Your task to perform on an android device: check battery use Image 0: 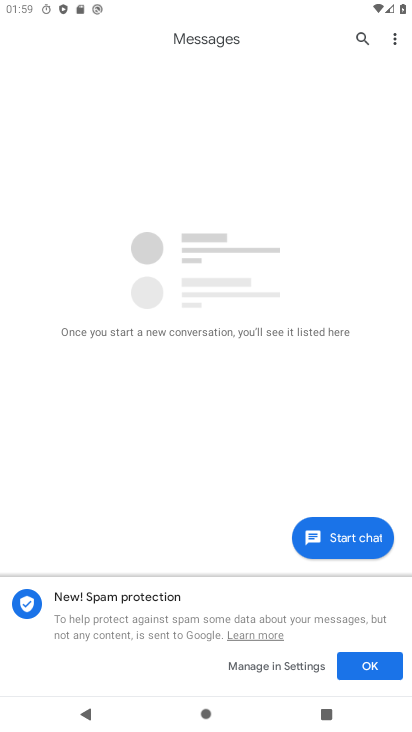
Step 0: press home button
Your task to perform on an android device: check battery use Image 1: 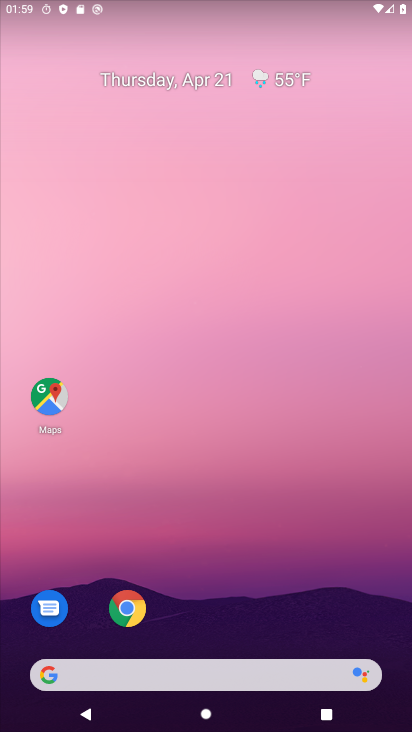
Step 1: drag from (203, 607) to (86, 79)
Your task to perform on an android device: check battery use Image 2: 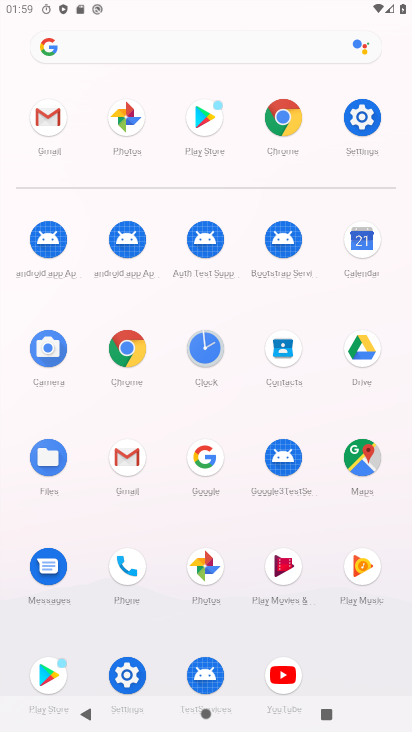
Step 2: click (355, 116)
Your task to perform on an android device: check battery use Image 3: 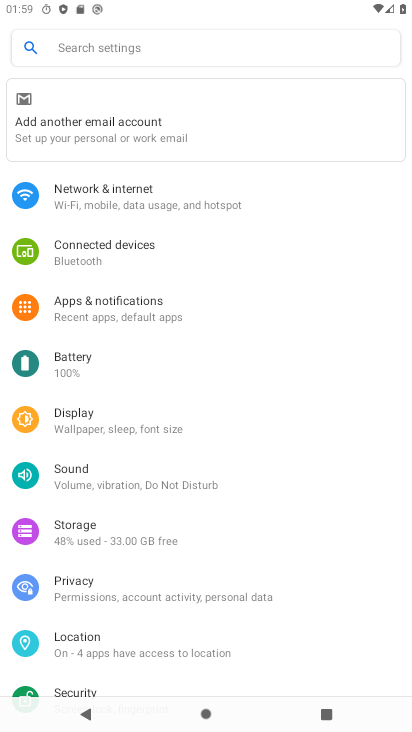
Step 3: click (68, 356)
Your task to perform on an android device: check battery use Image 4: 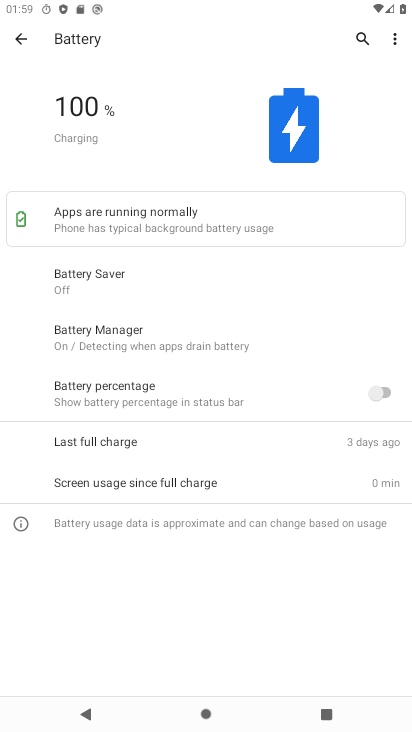
Step 4: click (73, 524)
Your task to perform on an android device: check battery use Image 5: 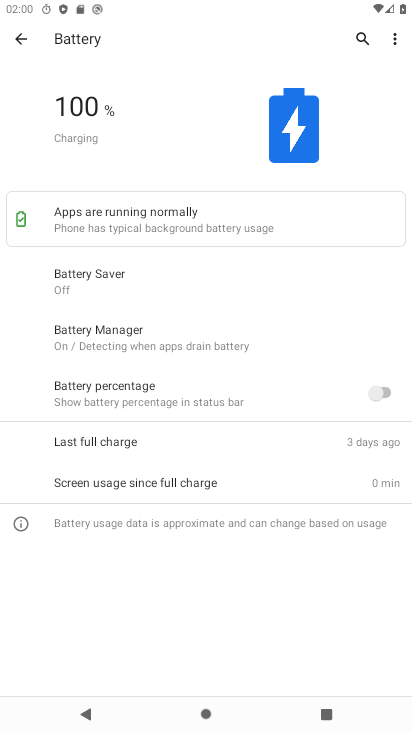
Step 5: task complete